Your task to perform on an android device: toggle wifi Image 0: 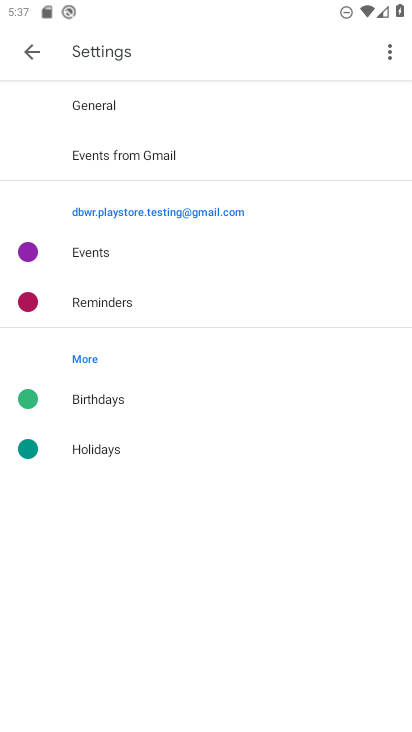
Step 0: drag from (212, 10) to (68, 561)
Your task to perform on an android device: toggle wifi Image 1: 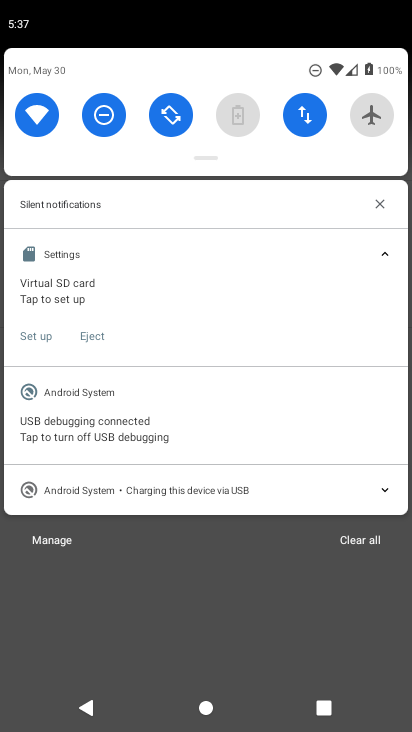
Step 1: click (35, 129)
Your task to perform on an android device: toggle wifi Image 2: 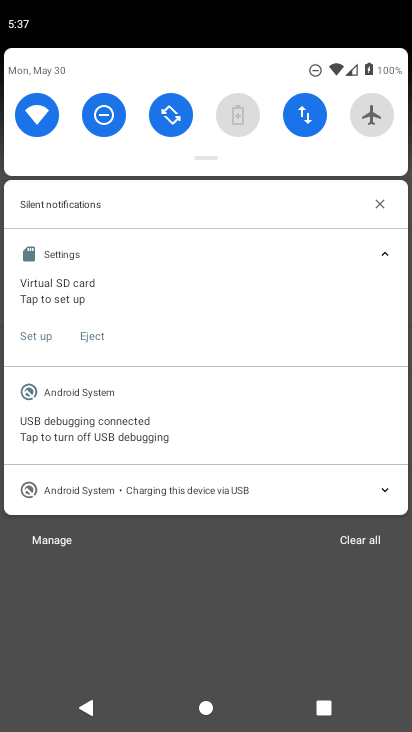
Step 2: click (35, 129)
Your task to perform on an android device: toggle wifi Image 3: 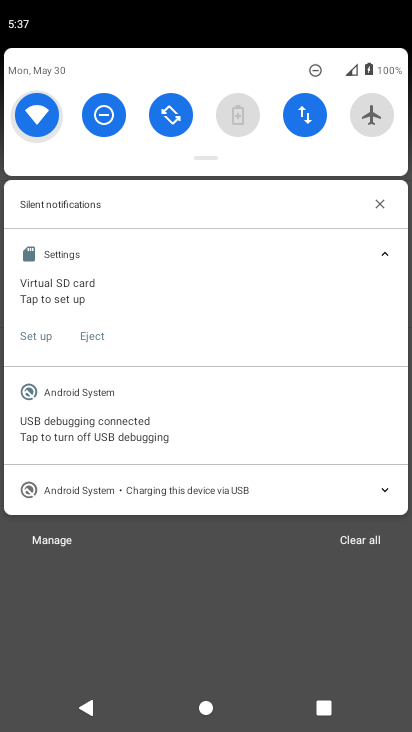
Step 3: click (35, 129)
Your task to perform on an android device: toggle wifi Image 4: 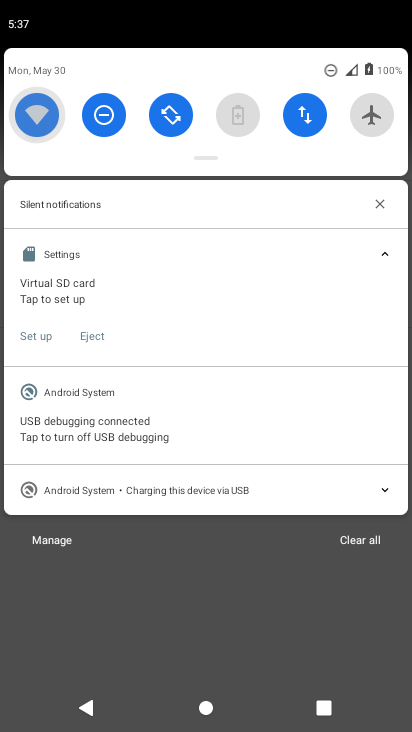
Step 4: click (35, 129)
Your task to perform on an android device: toggle wifi Image 5: 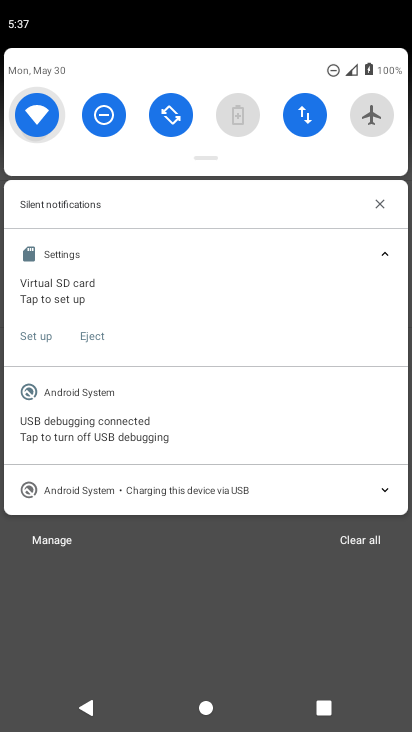
Step 5: click (35, 129)
Your task to perform on an android device: toggle wifi Image 6: 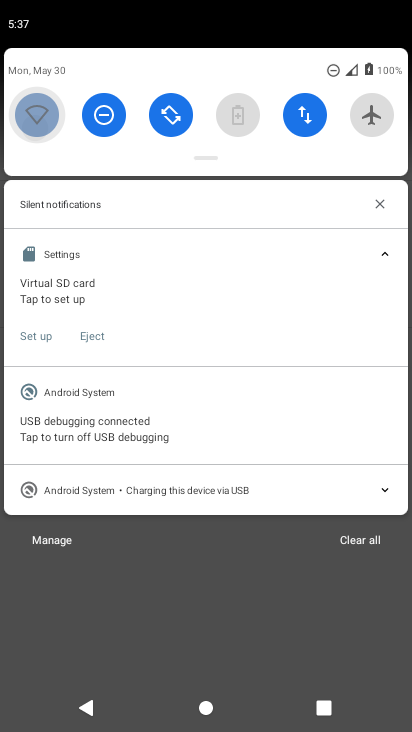
Step 6: click (35, 129)
Your task to perform on an android device: toggle wifi Image 7: 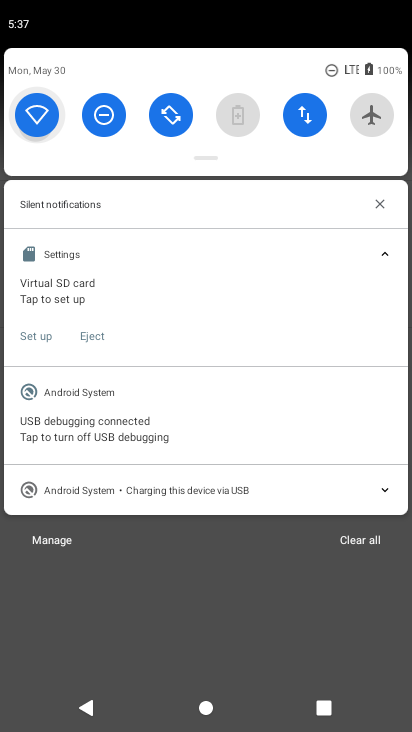
Step 7: click (35, 129)
Your task to perform on an android device: toggle wifi Image 8: 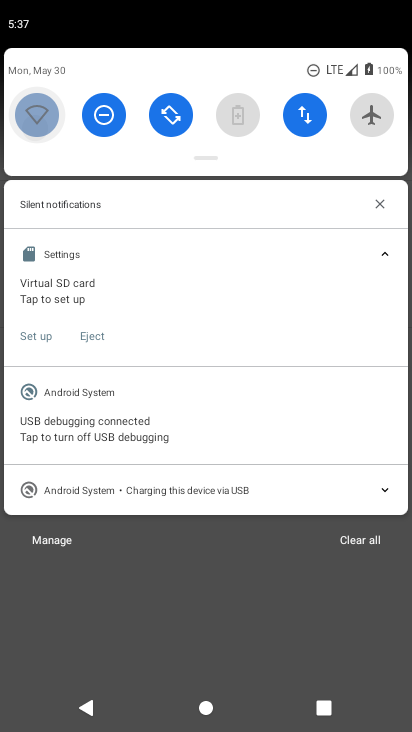
Step 8: click (35, 129)
Your task to perform on an android device: toggle wifi Image 9: 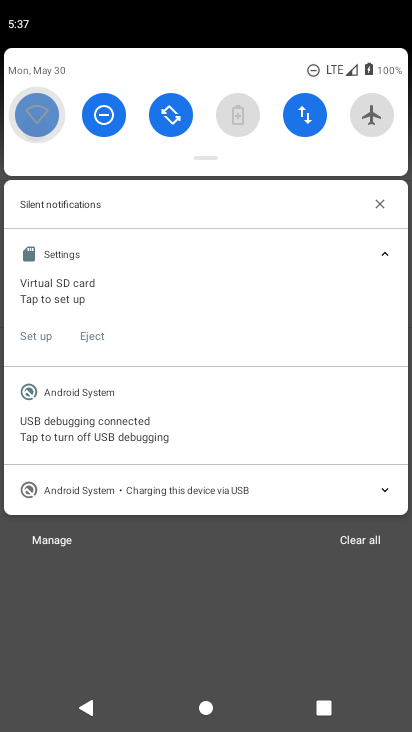
Step 9: click (35, 129)
Your task to perform on an android device: toggle wifi Image 10: 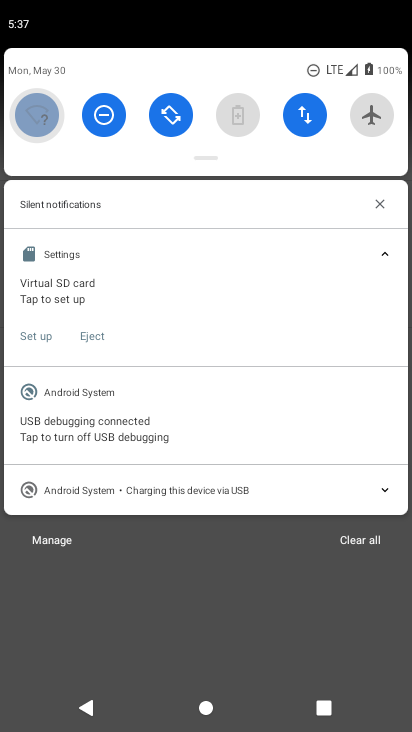
Step 10: click (35, 129)
Your task to perform on an android device: toggle wifi Image 11: 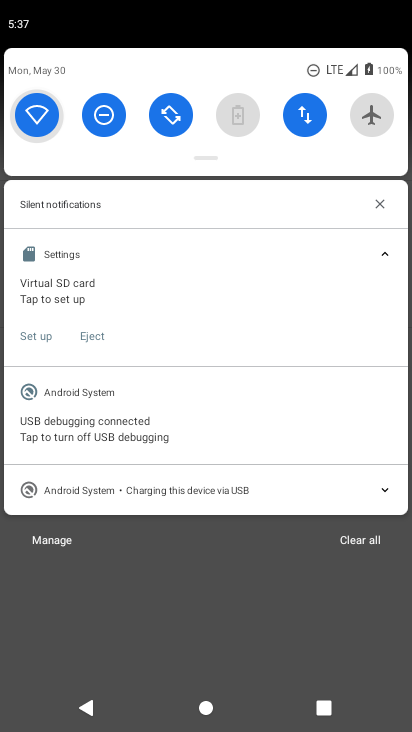
Step 11: click (35, 129)
Your task to perform on an android device: toggle wifi Image 12: 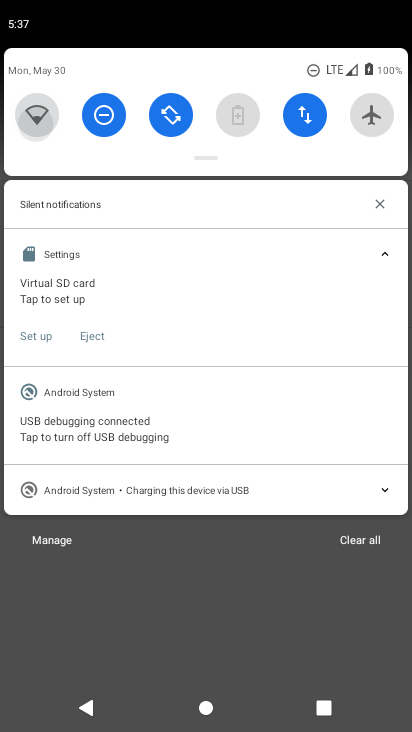
Step 12: click (35, 129)
Your task to perform on an android device: toggle wifi Image 13: 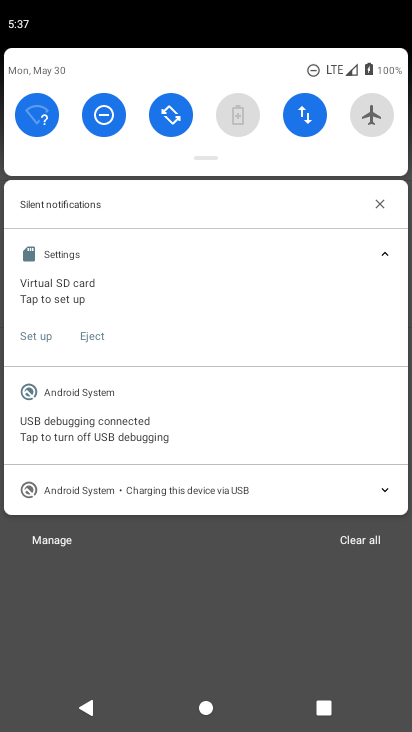
Step 13: task complete